Your task to perform on an android device: Show the shopping cart on bestbuy. Search for "logitech g pro" on bestbuy, select the first entry, and add it to the cart. Image 0: 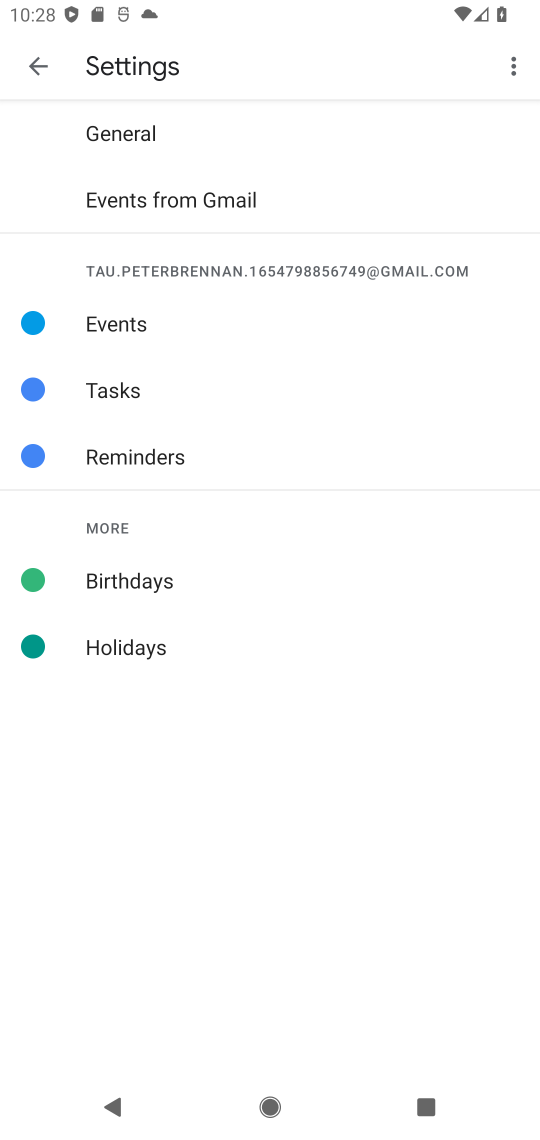
Step 0: press home button
Your task to perform on an android device: Show the shopping cart on bestbuy. Search for "logitech g pro" on bestbuy, select the first entry, and add it to the cart. Image 1: 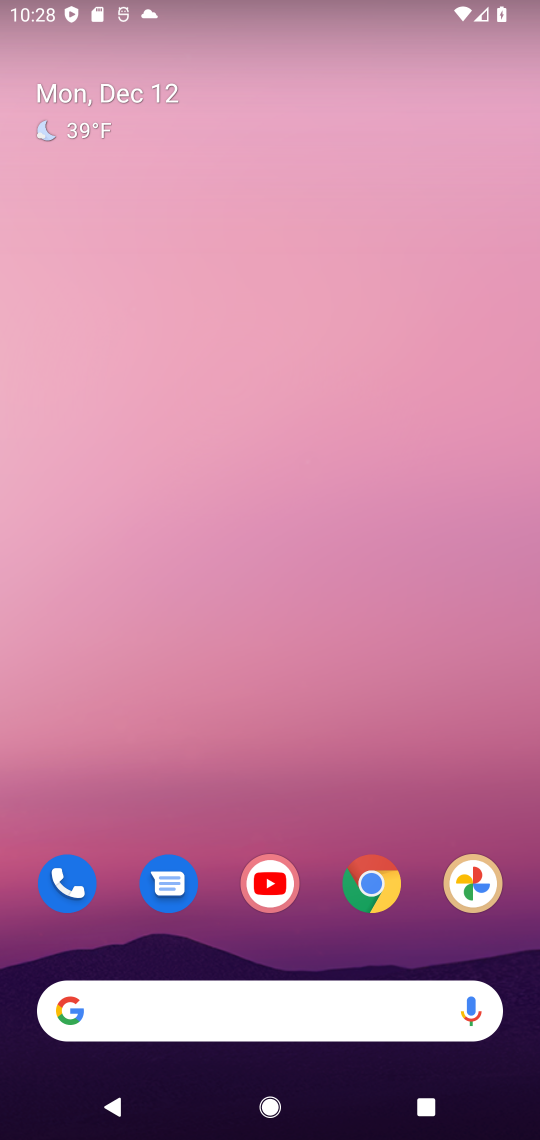
Step 1: drag from (238, 775) to (238, 522)
Your task to perform on an android device: Show the shopping cart on bestbuy. Search for "logitech g pro" on bestbuy, select the first entry, and add it to the cart. Image 2: 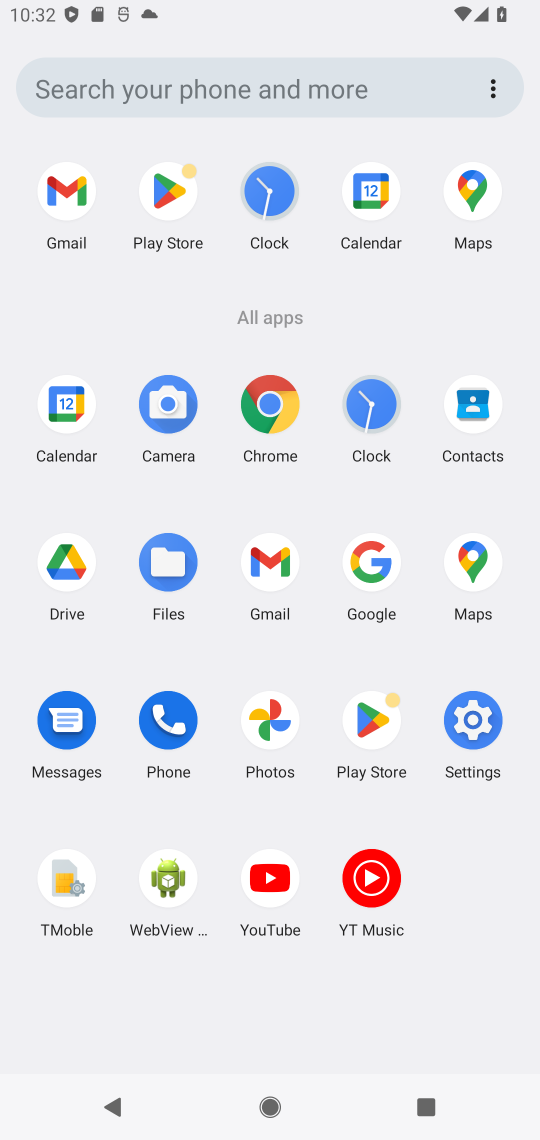
Step 2: click (352, 567)
Your task to perform on an android device: Show the shopping cart on bestbuy. Search for "logitech g pro" on bestbuy, select the first entry, and add it to the cart. Image 3: 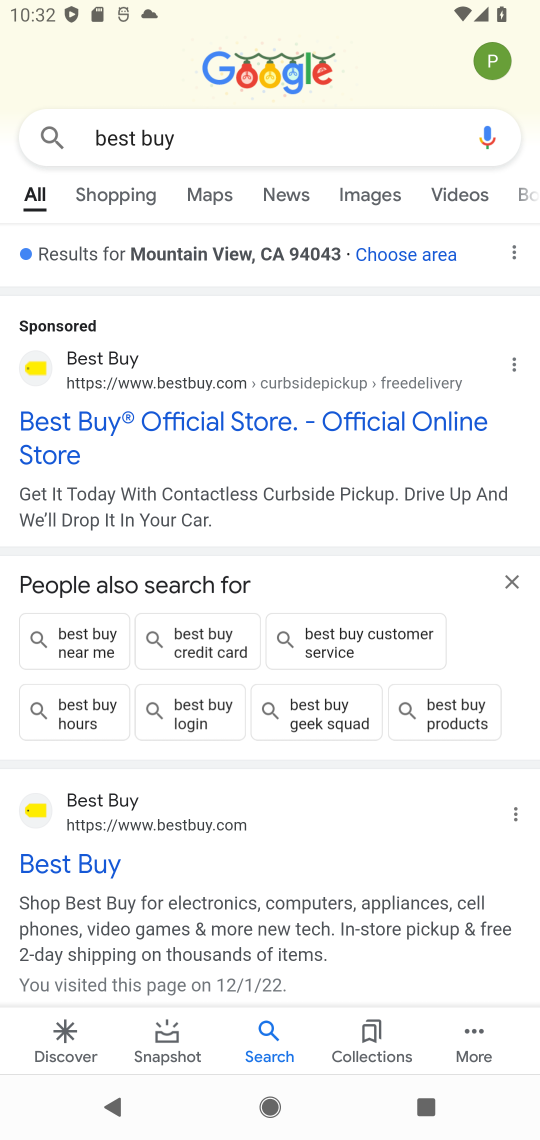
Step 3: click (112, 425)
Your task to perform on an android device: Show the shopping cart on bestbuy. Search for "logitech g pro" on bestbuy, select the first entry, and add it to the cart. Image 4: 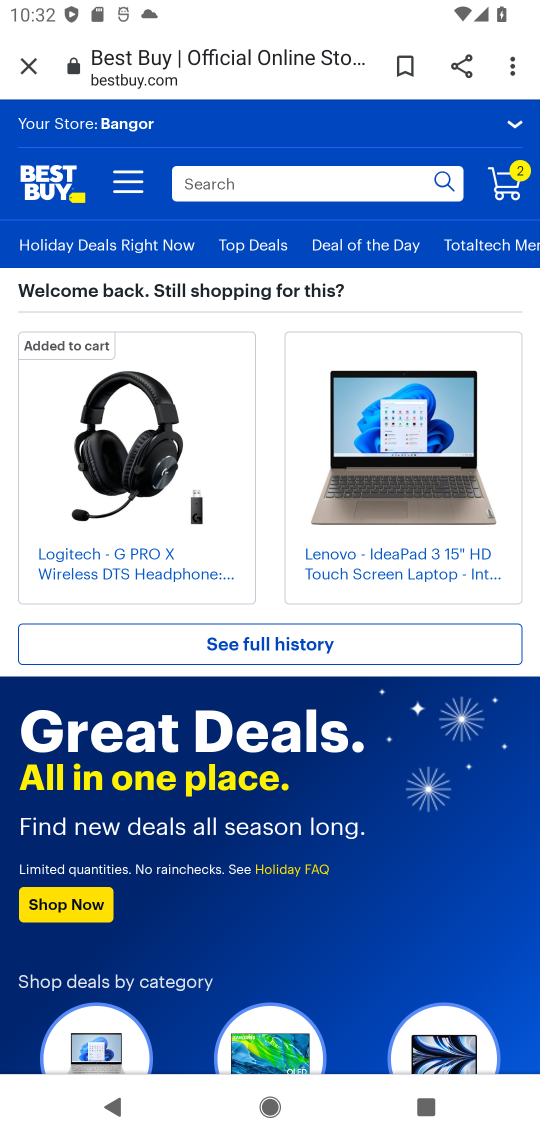
Step 4: click (493, 184)
Your task to perform on an android device: Show the shopping cart on bestbuy. Search for "logitech g pro" on bestbuy, select the first entry, and add it to the cart. Image 5: 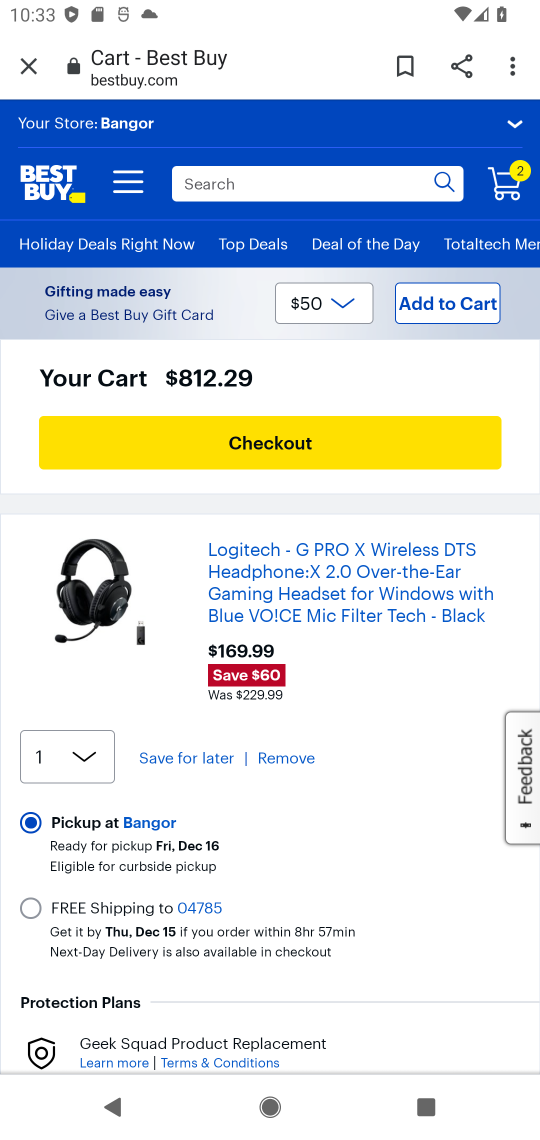
Step 5: click (382, 188)
Your task to perform on an android device: Show the shopping cart on bestbuy. Search for "logitech g pro" on bestbuy, select the first entry, and add it to the cart. Image 6: 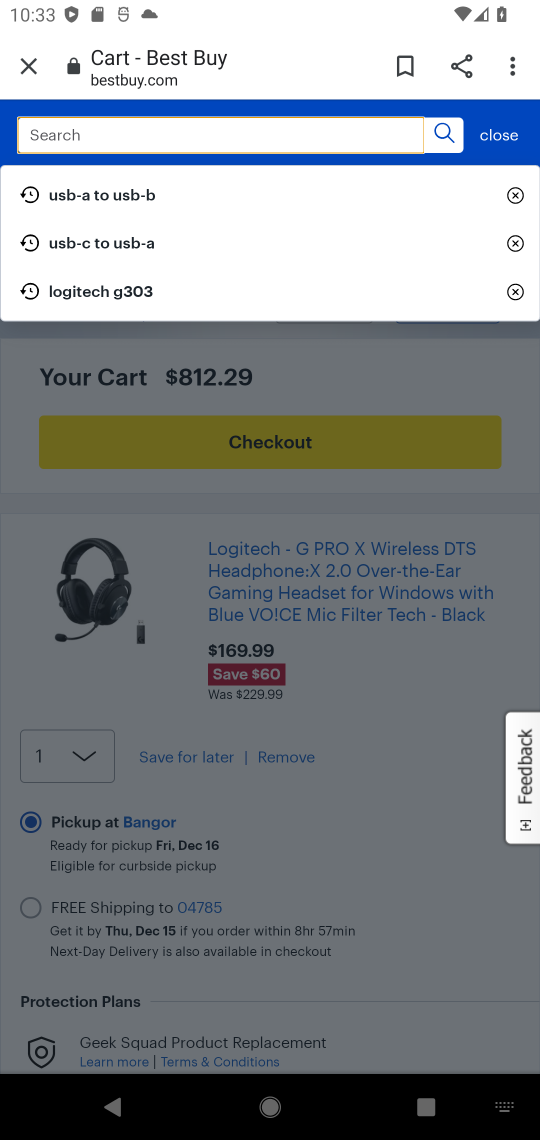
Step 6: type "logitech g pro"
Your task to perform on an android device: Show the shopping cart on bestbuy. Search for "logitech g pro" on bestbuy, select the first entry, and add it to the cart. Image 7: 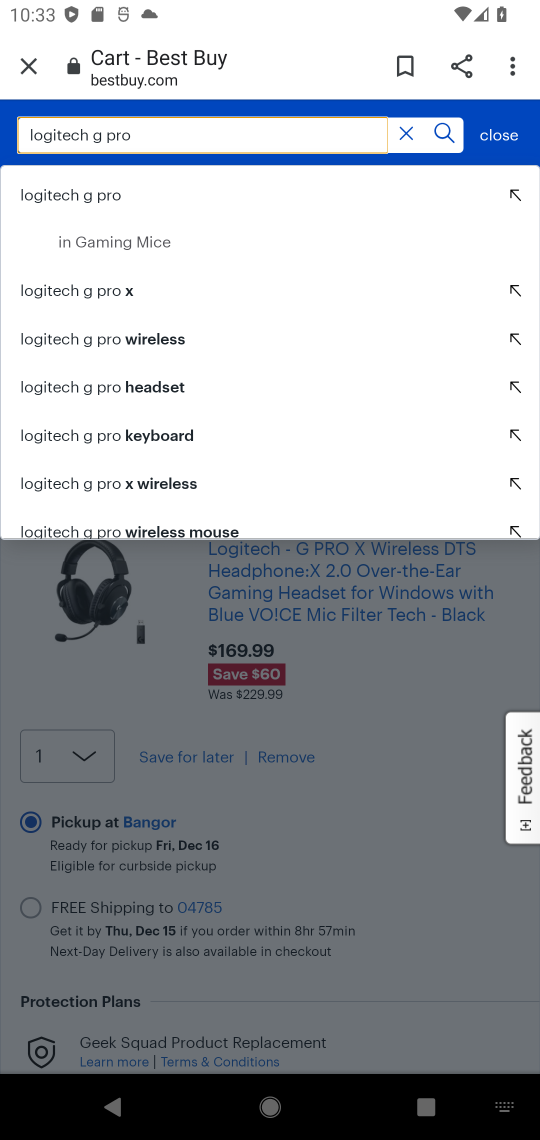
Step 7: click (442, 129)
Your task to perform on an android device: Show the shopping cart on bestbuy. Search for "logitech g pro" on bestbuy, select the first entry, and add it to the cart. Image 8: 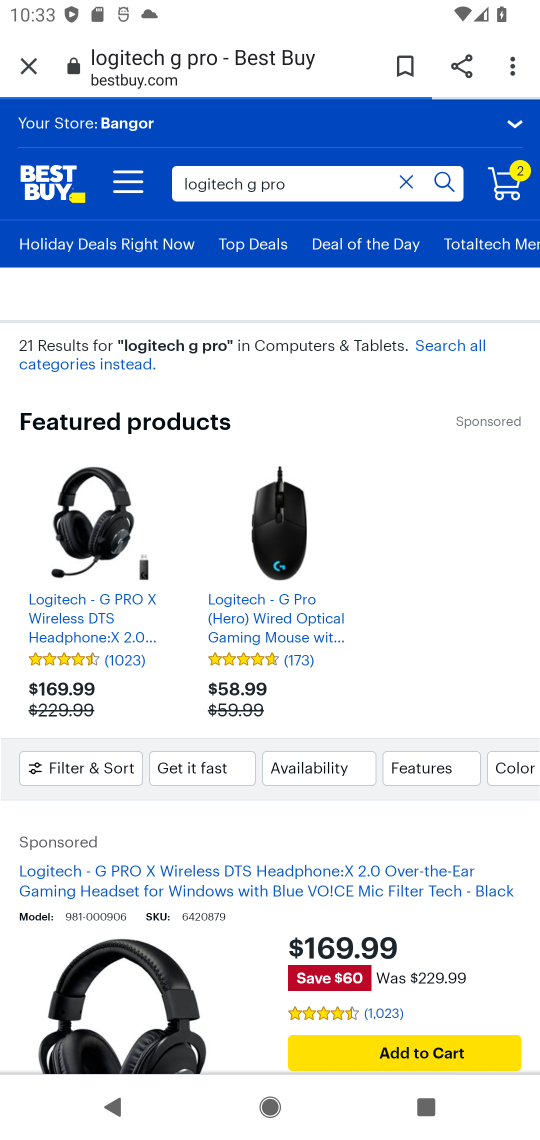
Step 8: drag from (240, 939) to (249, 519)
Your task to perform on an android device: Show the shopping cart on bestbuy. Search for "logitech g pro" on bestbuy, select the first entry, and add it to the cart. Image 9: 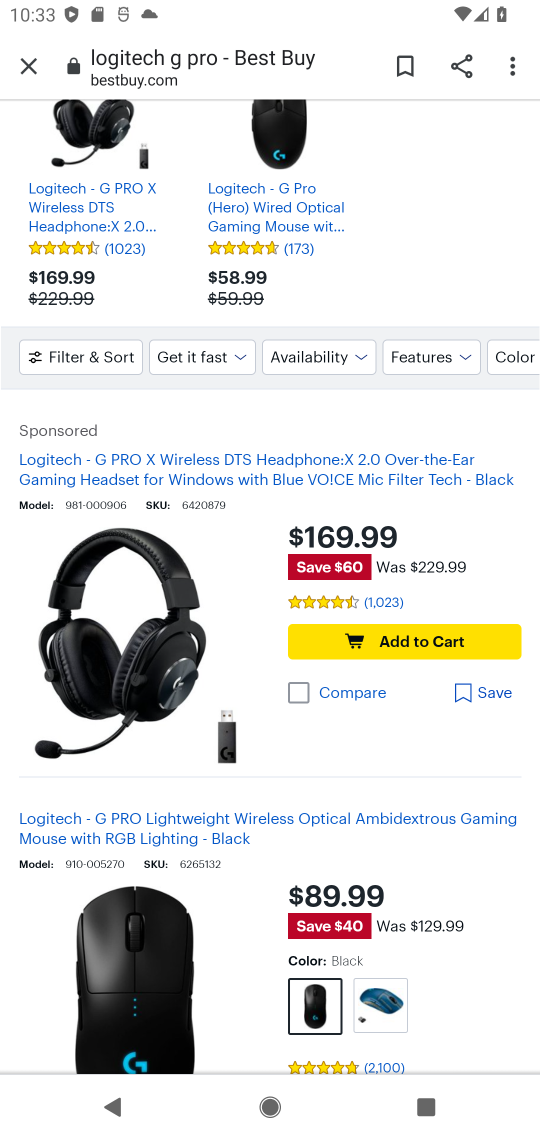
Step 9: click (405, 651)
Your task to perform on an android device: Show the shopping cart on bestbuy. Search for "logitech g pro" on bestbuy, select the first entry, and add it to the cart. Image 10: 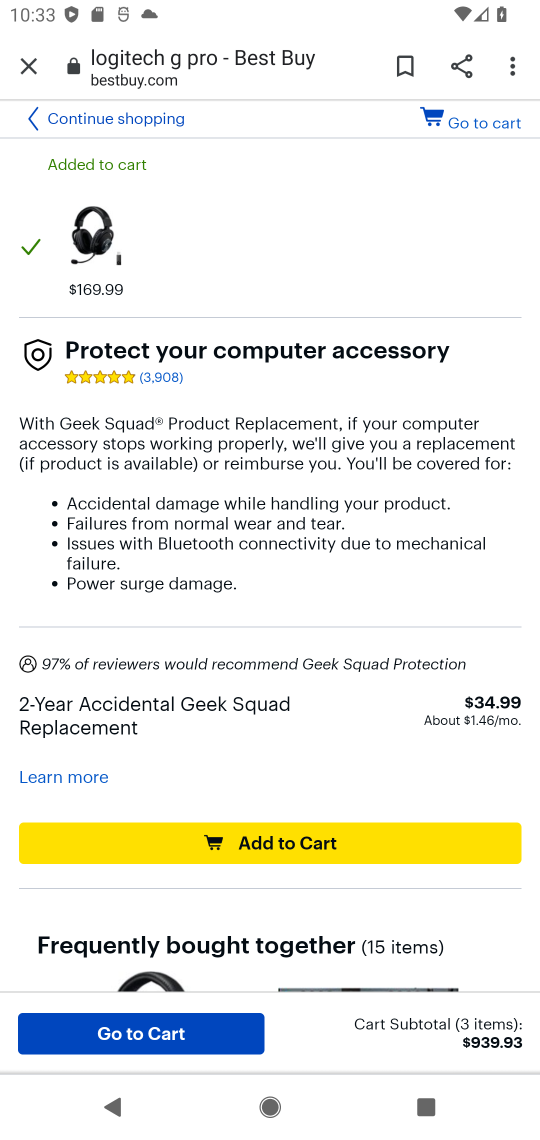
Step 10: task complete